Your task to perform on an android device: turn on the 24-hour format for clock Image 0: 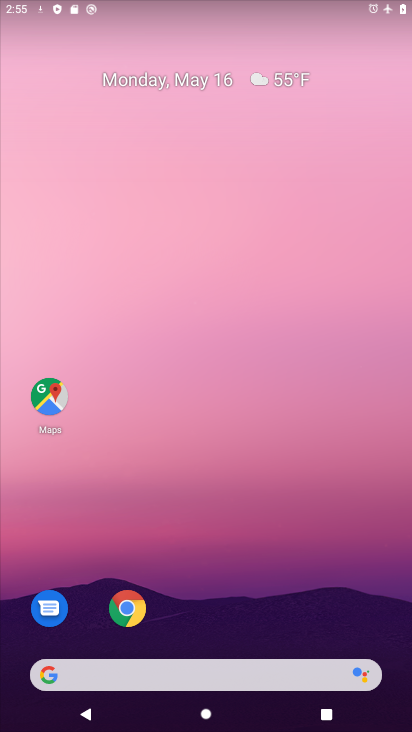
Step 0: drag from (224, 621) to (232, 210)
Your task to perform on an android device: turn on the 24-hour format for clock Image 1: 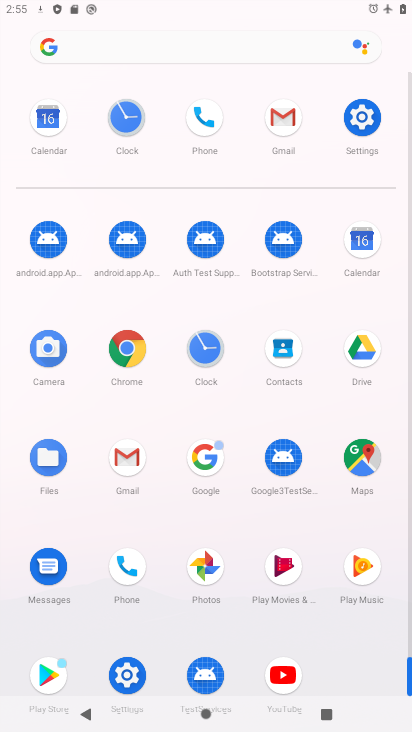
Step 1: click (124, 121)
Your task to perform on an android device: turn on the 24-hour format for clock Image 2: 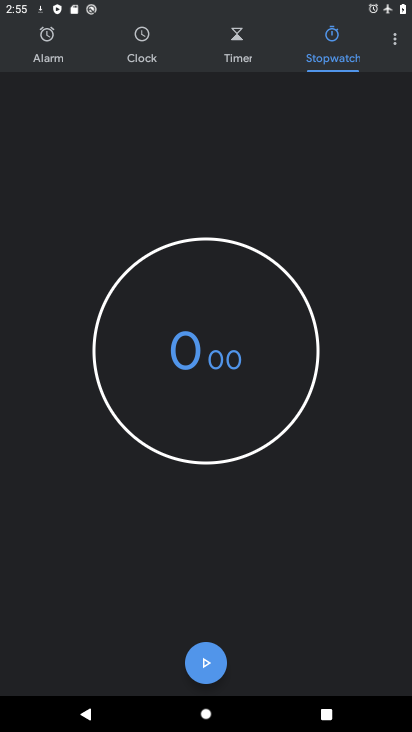
Step 2: click (390, 36)
Your task to perform on an android device: turn on the 24-hour format for clock Image 3: 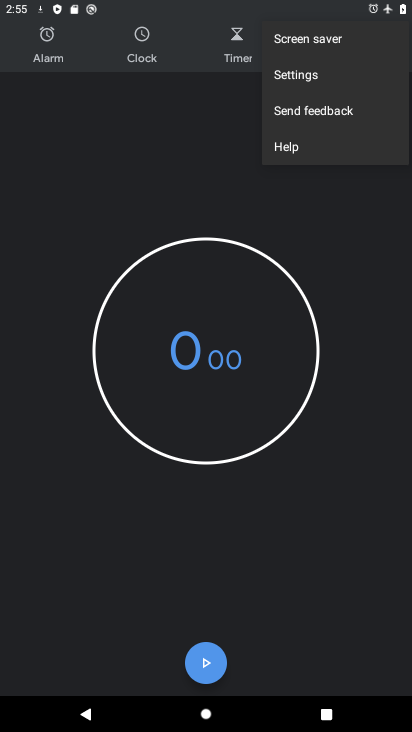
Step 3: click (320, 73)
Your task to perform on an android device: turn on the 24-hour format for clock Image 4: 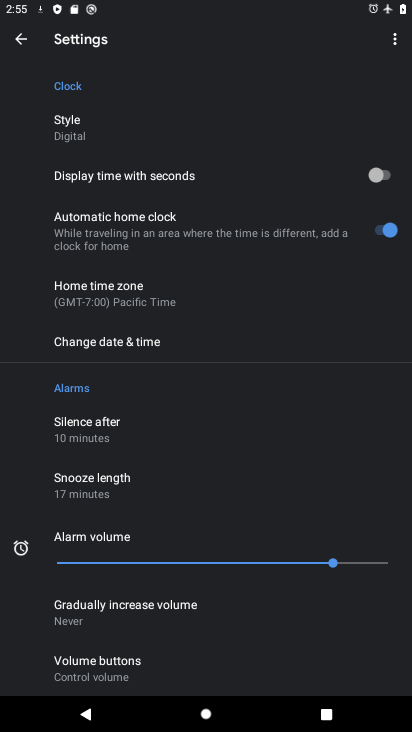
Step 4: click (139, 341)
Your task to perform on an android device: turn on the 24-hour format for clock Image 5: 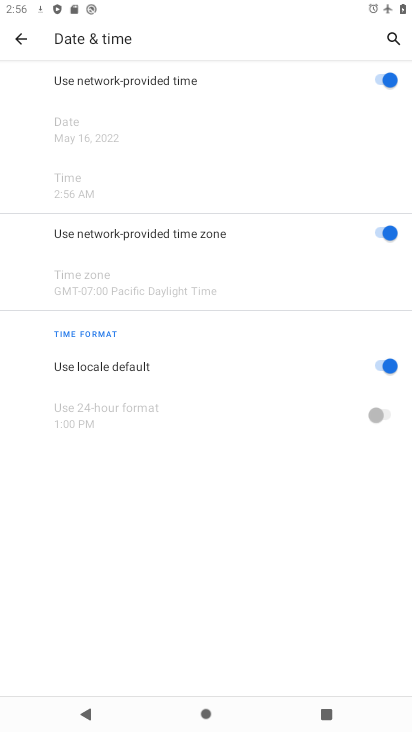
Step 5: click (376, 361)
Your task to perform on an android device: turn on the 24-hour format for clock Image 6: 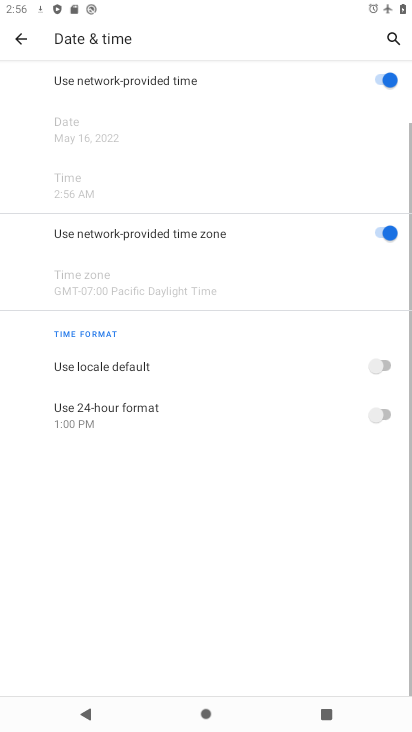
Step 6: click (386, 416)
Your task to perform on an android device: turn on the 24-hour format for clock Image 7: 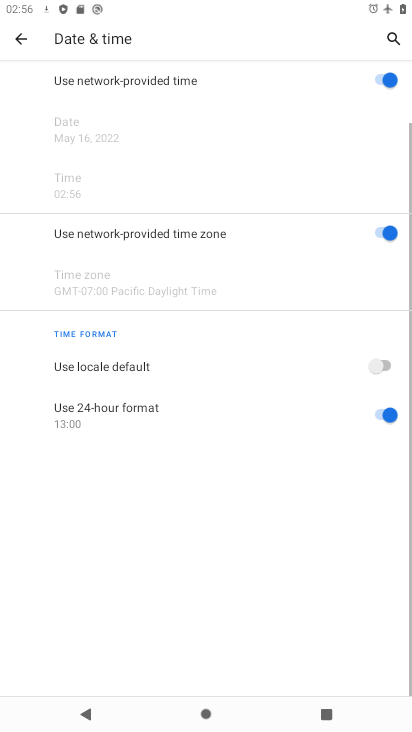
Step 7: task complete